Your task to perform on an android device: open app "Roku - Official Remote Control" (install if not already installed) Image 0: 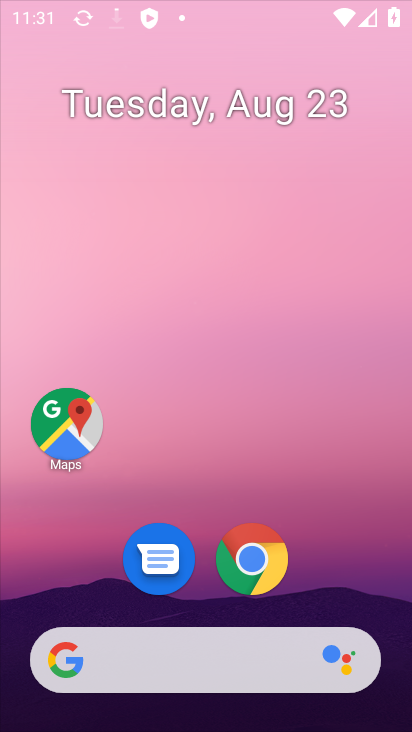
Step 0: drag from (236, 20) to (180, 35)
Your task to perform on an android device: open app "Roku - Official Remote Control" (install if not already installed) Image 1: 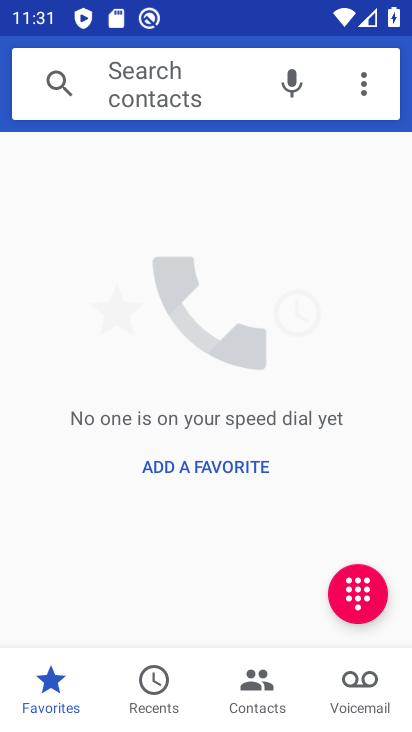
Step 1: press home button
Your task to perform on an android device: open app "Roku - Official Remote Control" (install if not already installed) Image 2: 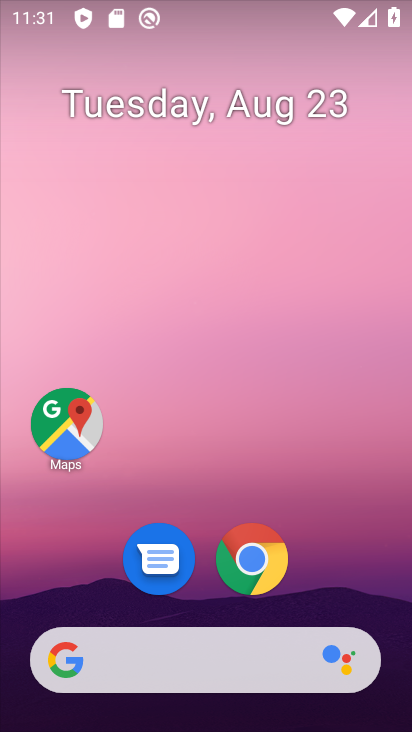
Step 2: drag from (186, 464) to (206, 136)
Your task to perform on an android device: open app "Roku - Official Remote Control" (install if not already installed) Image 3: 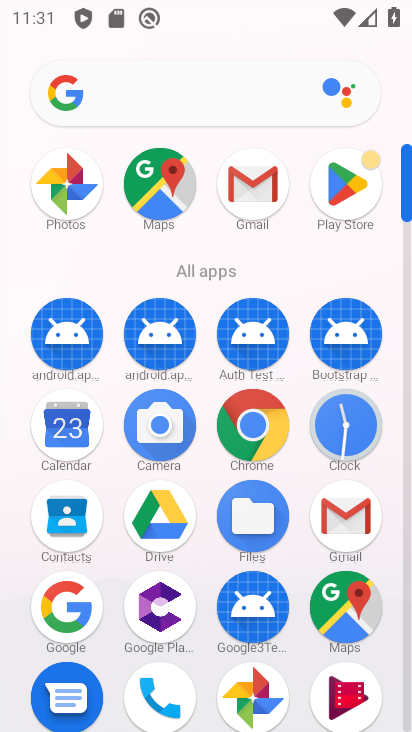
Step 3: click (353, 188)
Your task to perform on an android device: open app "Roku - Official Remote Control" (install if not already installed) Image 4: 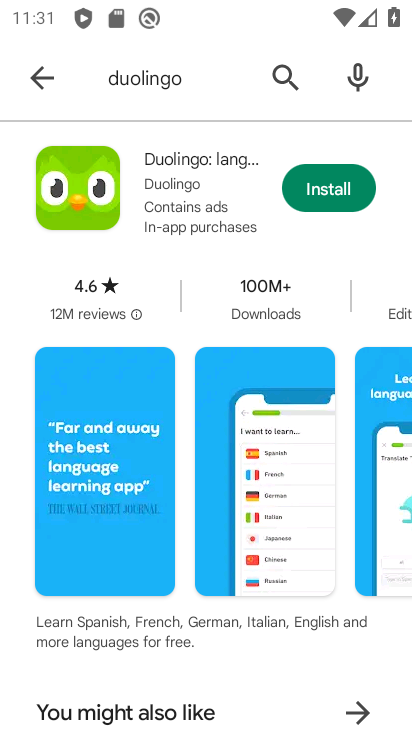
Step 4: click (177, 83)
Your task to perform on an android device: open app "Roku - Official Remote Control" (install if not already installed) Image 5: 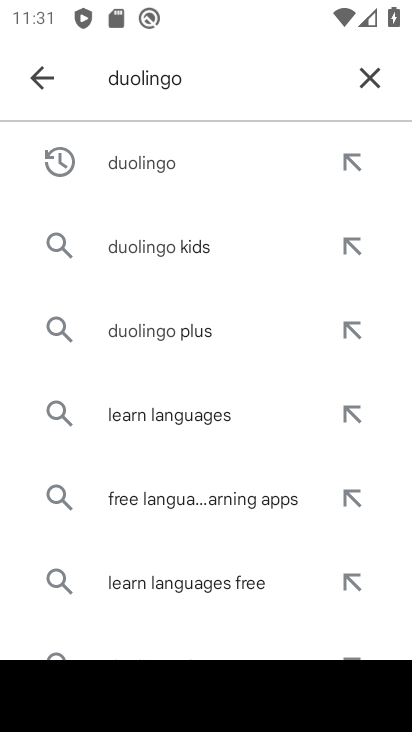
Step 5: click (368, 70)
Your task to perform on an android device: open app "Roku - Official Remote Control" (install if not already installed) Image 6: 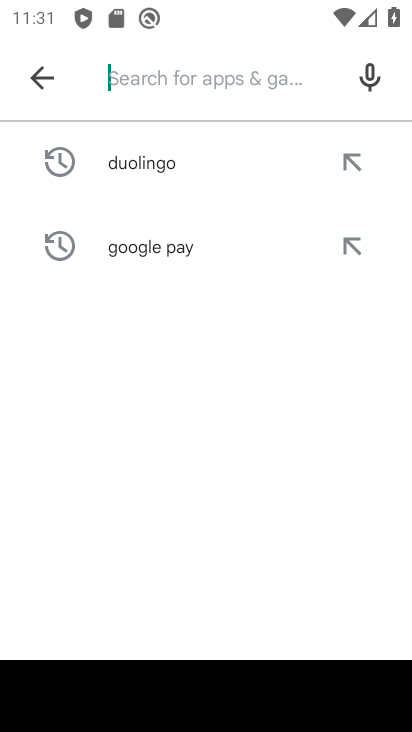
Step 6: type "roku"
Your task to perform on an android device: open app "Roku - Official Remote Control" (install if not already installed) Image 7: 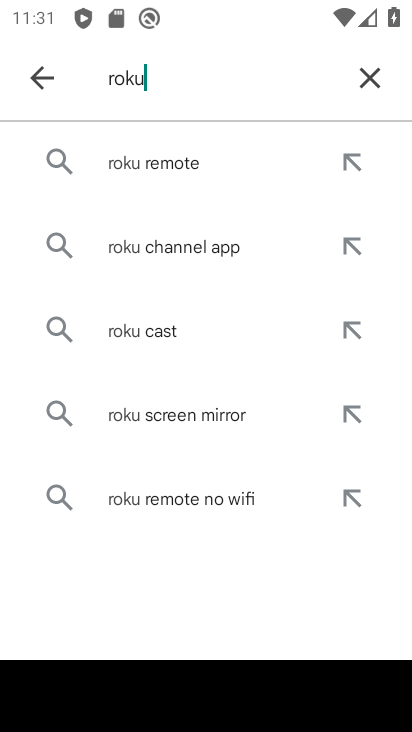
Step 7: click (223, 170)
Your task to perform on an android device: open app "Roku - Official Remote Control" (install if not already installed) Image 8: 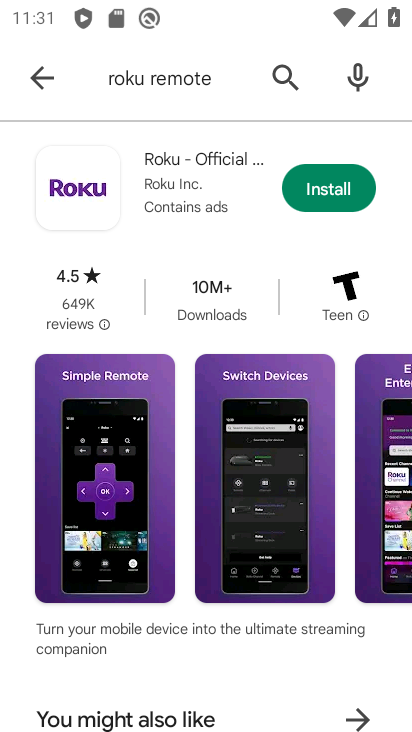
Step 8: click (335, 194)
Your task to perform on an android device: open app "Roku - Official Remote Control" (install if not already installed) Image 9: 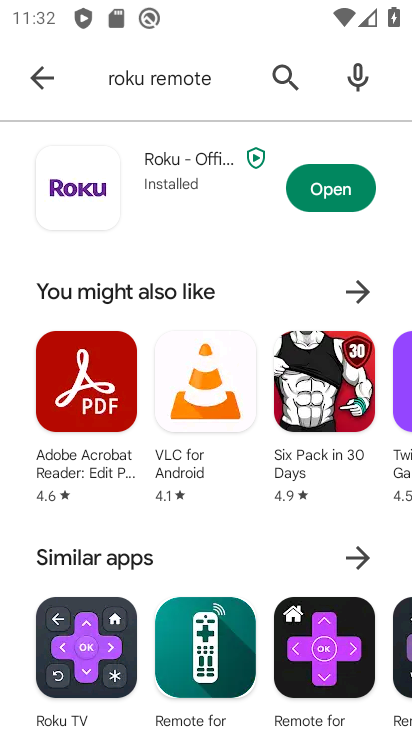
Step 9: click (318, 193)
Your task to perform on an android device: open app "Roku - Official Remote Control" (install if not already installed) Image 10: 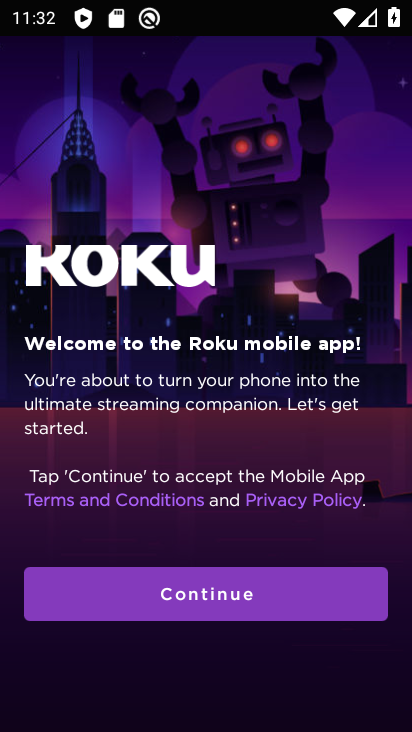
Step 10: click (227, 598)
Your task to perform on an android device: open app "Roku - Official Remote Control" (install if not already installed) Image 11: 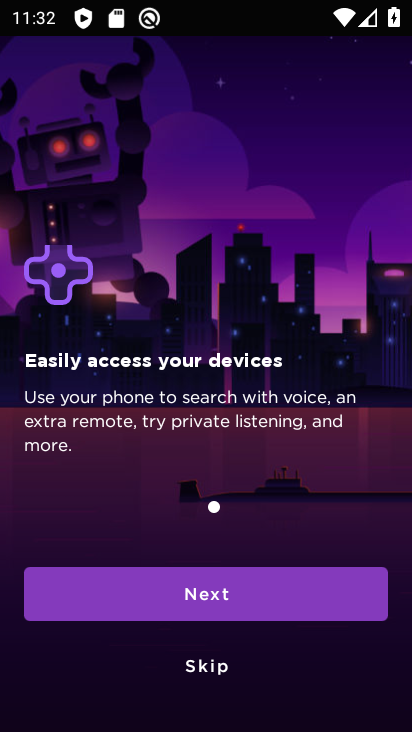
Step 11: click (245, 599)
Your task to perform on an android device: open app "Roku - Official Remote Control" (install if not already installed) Image 12: 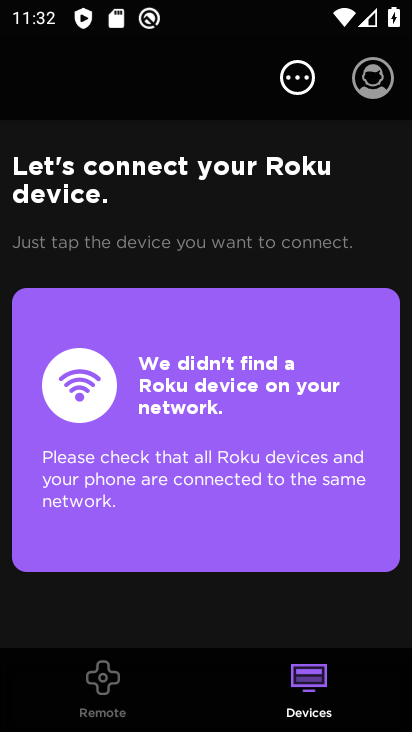
Step 12: task complete